Your task to perform on an android device: Do I have any events today? Image 0: 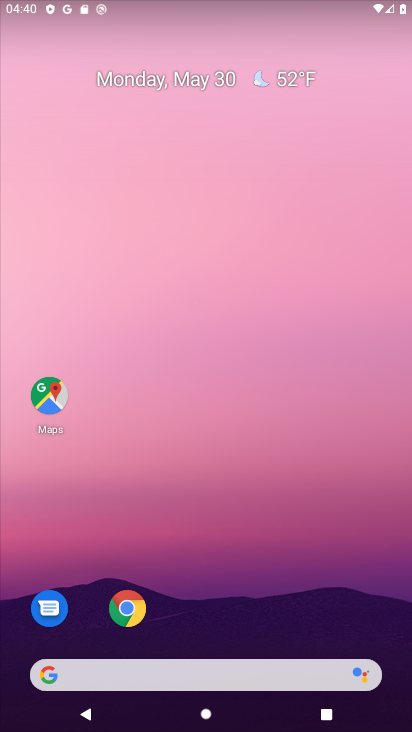
Step 0: drag from (179, 658) to (182, 206)
Your task to perform on an android device: Do I have any events today? Image 1: 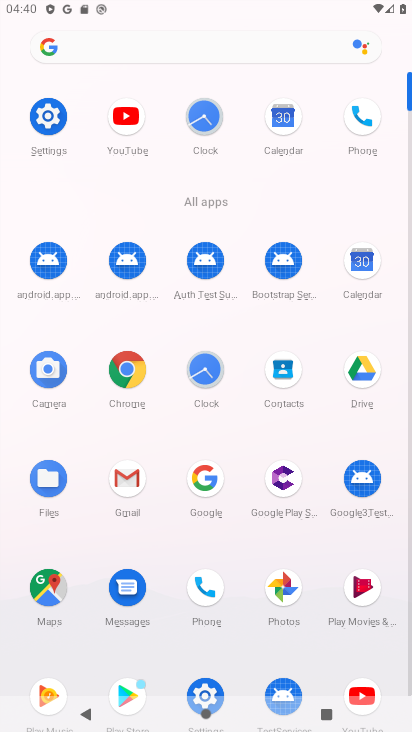
Step 1: click (368, 267)
Your task to perform on an android device: Do I have any events today? Image 2: 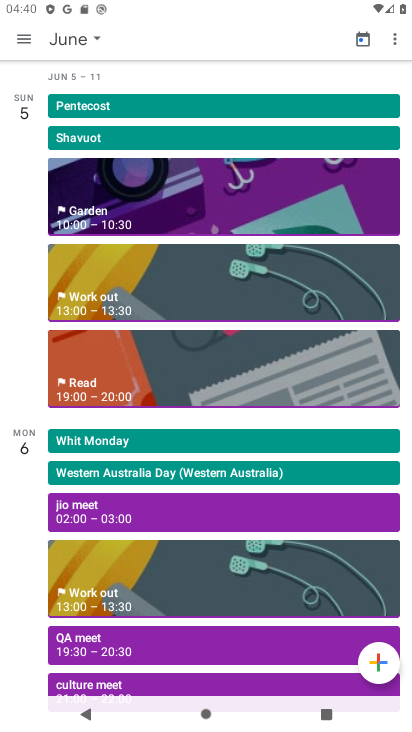
Step 2: click (66, 36)
Your task to perform on an android device: Do I have any events today? Image 3: 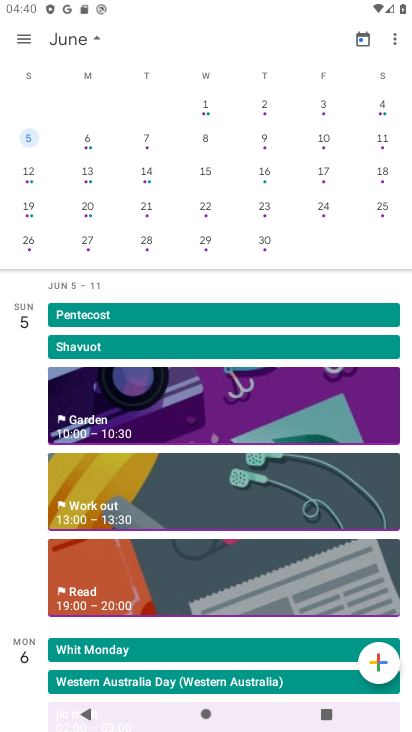
Step 3: drag from (23, 168) to (394, 203)
Your task to perform on an android device: Do I have any events today? Image 4: 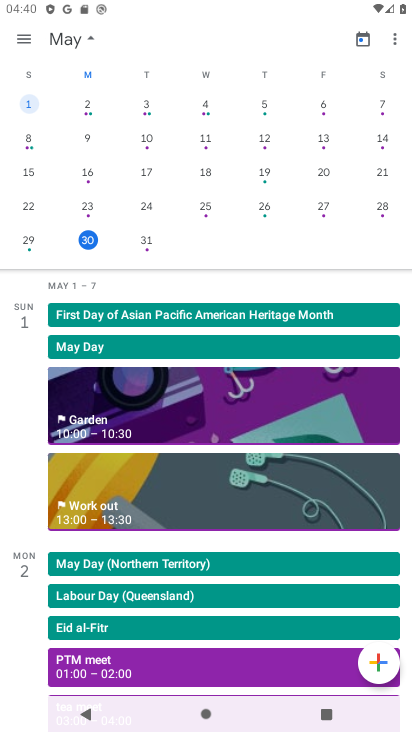
Step 4: click (80, 242)
Your task to perform on an android device: Do I have any events today? Image 5: 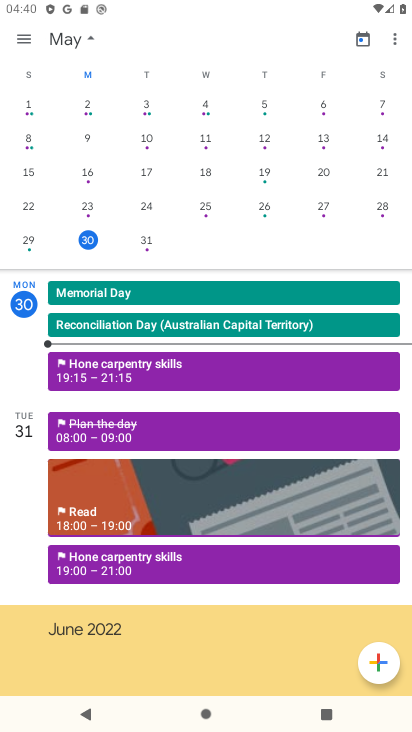
Step 5: click (113, 369)
Your task to perform on an android device: Do I have any events today? Image 6: 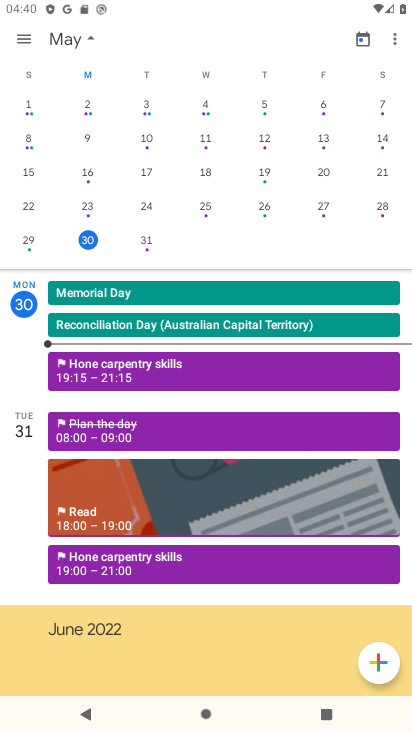
Step 6: click (94, 363)
Your task to perform on an android device: Do I have any events today? Image 7: 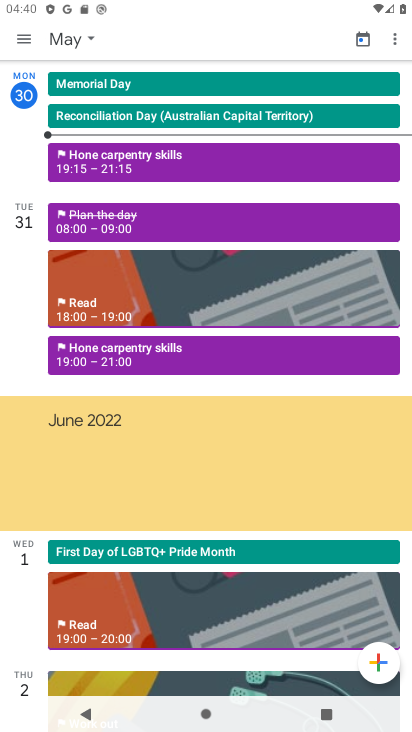
Step 7: task complete